Your task to perform on an android device: Open the calendar app, open the side menu, and click the "Day" option Image 0: 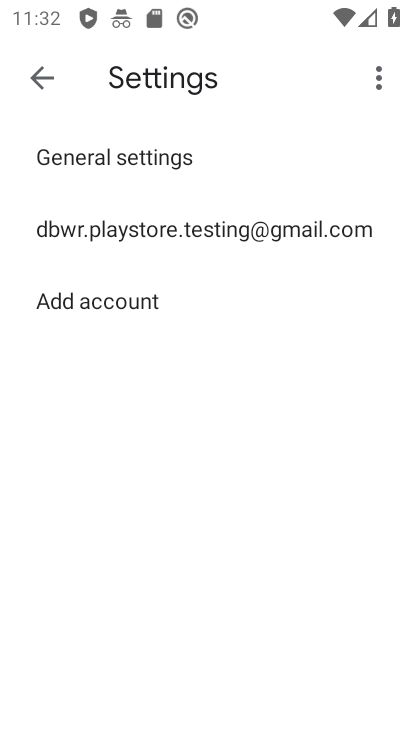
Step 0: press home button
Your task to perform on an android device: Open the calendar app, open the side menu, and click the "Day" option Image 1: 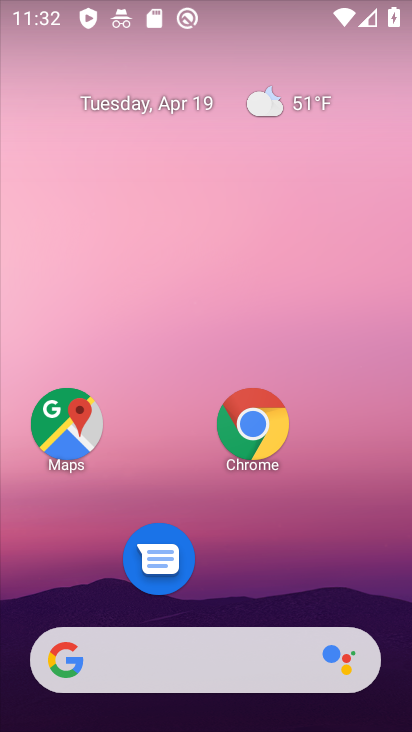
Step 1: drag from (280, 627) to (202, 102)
Your task to perform on an android device: Open the calendar app, open the side menu, and click the "Day" option Image 2: 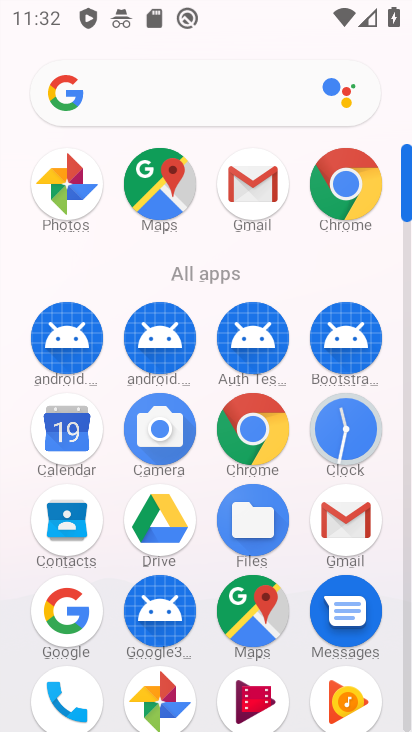
Step 2: click (59, 417)
Your task to perform on an android device: Open the calendar app, open the side menu, and click the "Day" option Image 3: 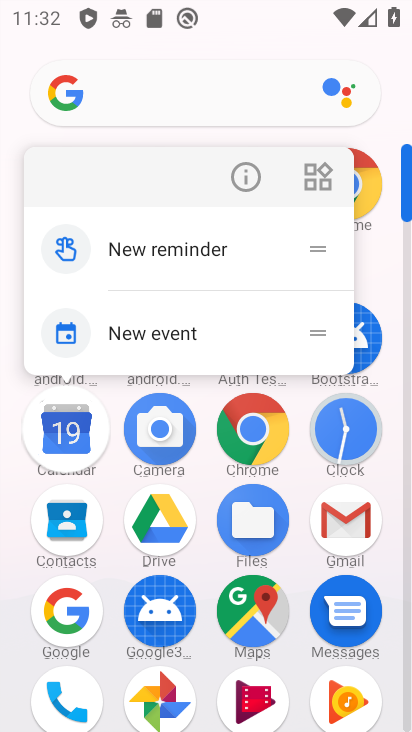
Step 3: click (59, 436)
Your task to perform on an android device: Open the calendar app, open the side menu, and click the "Day" option Image 4: 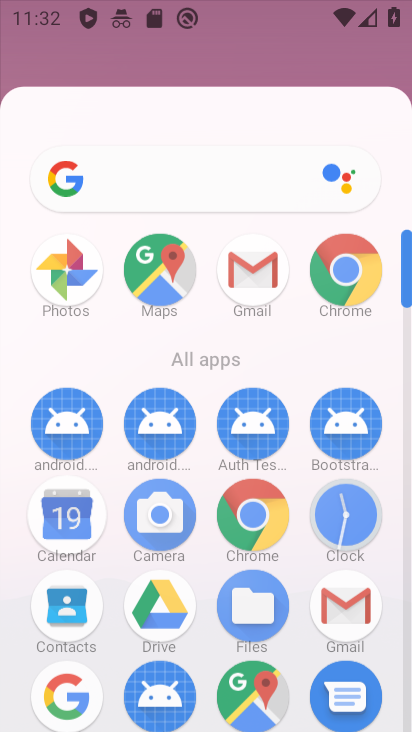
Step 4: click (61, 420)
Your task to perform on an android device: Open the calendar app, open the side menu, and click the "Day" option Image 5: 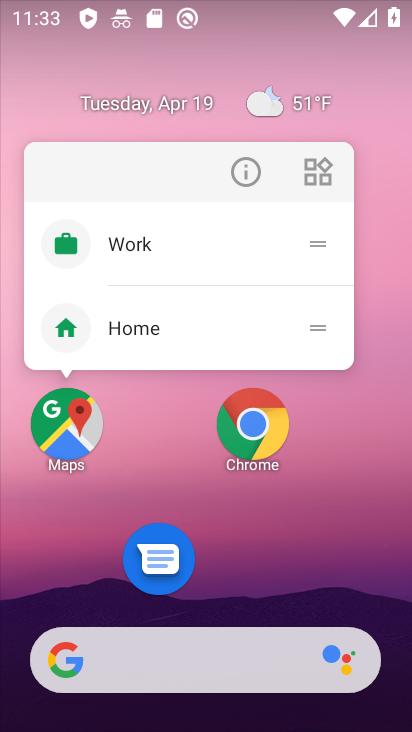
Step 5: drag from (266, 411) to (242, 271)
Your task to perform on an android device: Open the calendar app, open the side menu, and click the "Day" option Image 6: 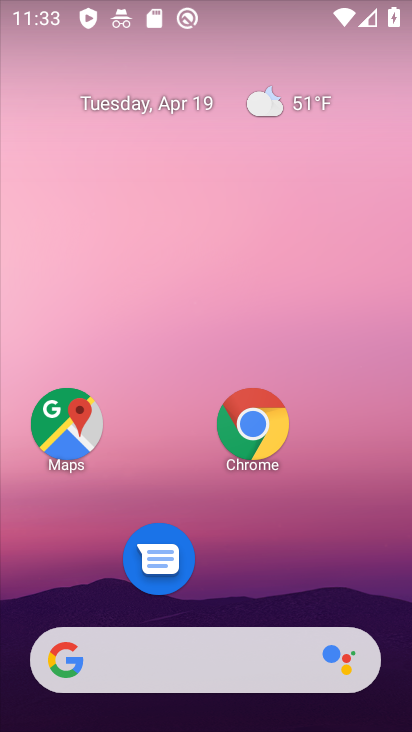
Step 6: drag from (264, 532) to (210, 215)
Your task to perform on an android device: Open the calendar app, open the side menu, and click the "Day" option Image 7: 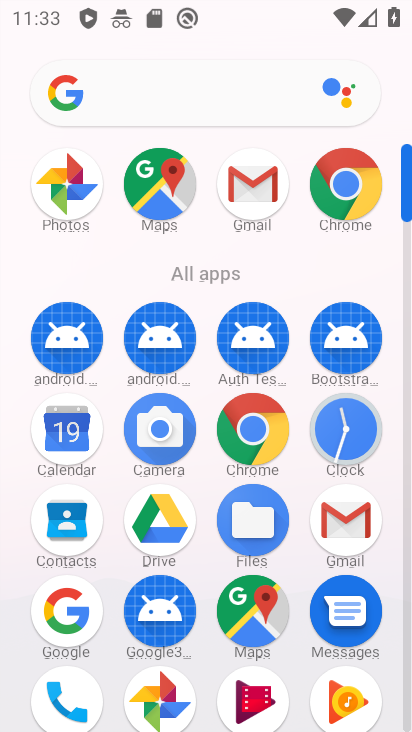
Step 7: click (66, 431)
Your task to perform on an android device: Open the calendar app, open the side menu, and click the "Day" option Image 8: 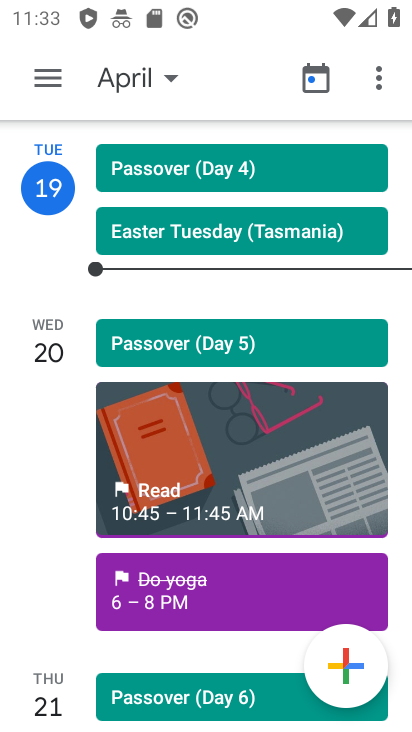
Step 8: click (52, 71)
Your task to perform on an android device: Open the calendar app, open the side menu, and click the "Day" option Image 9: 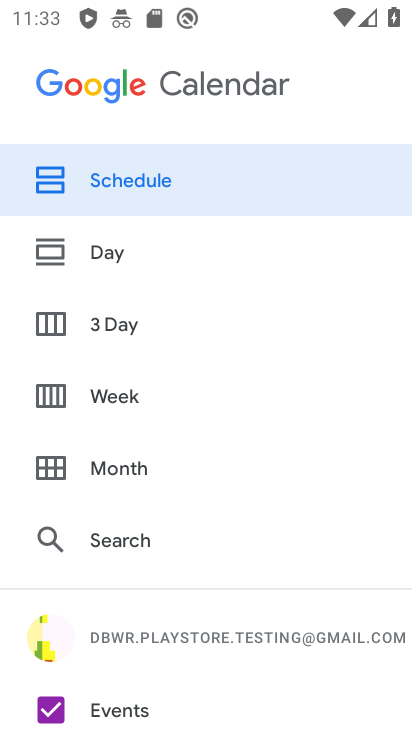
Step 9: click (102, 255)
Your task to perform on an android device: Open the calendar app, open the side menu, and click the "Day" option Image 10: 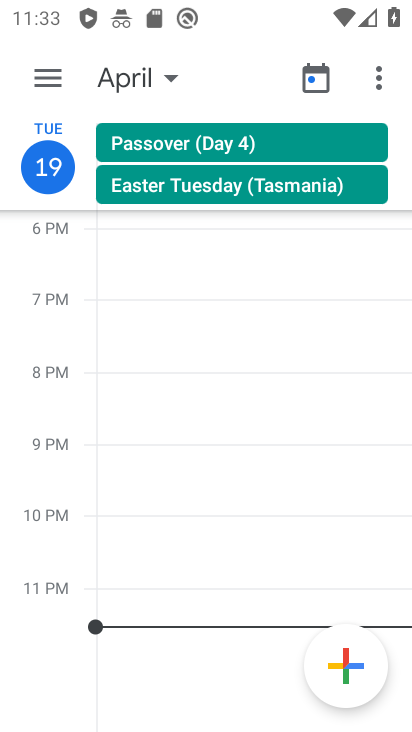
Step 10: click (41, 80)
Your task to perform on an android device: Open the calendar app, open the side menu, and click the "Day" option Image 11: 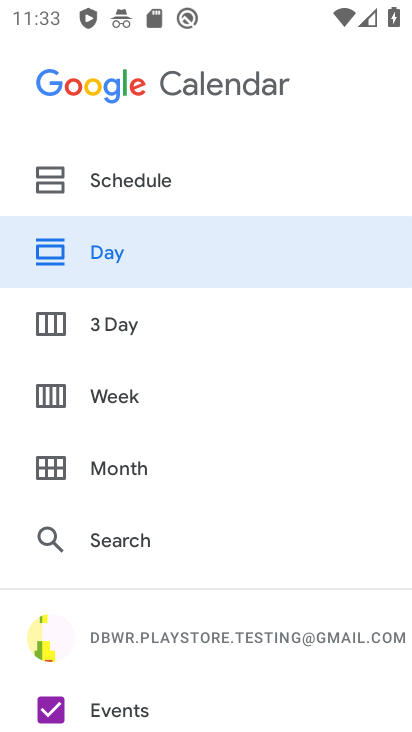
Step 11: click (113, 247)
Your task to perform on an android device: Open the calendar app, open the side menu, and click the "Day" option Image 12: 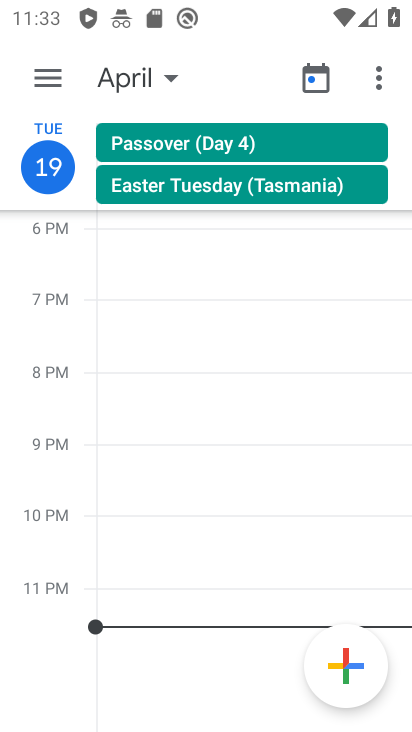
Step 12: task complete